Your task to perform on an android device: Go to eBay Image 0: 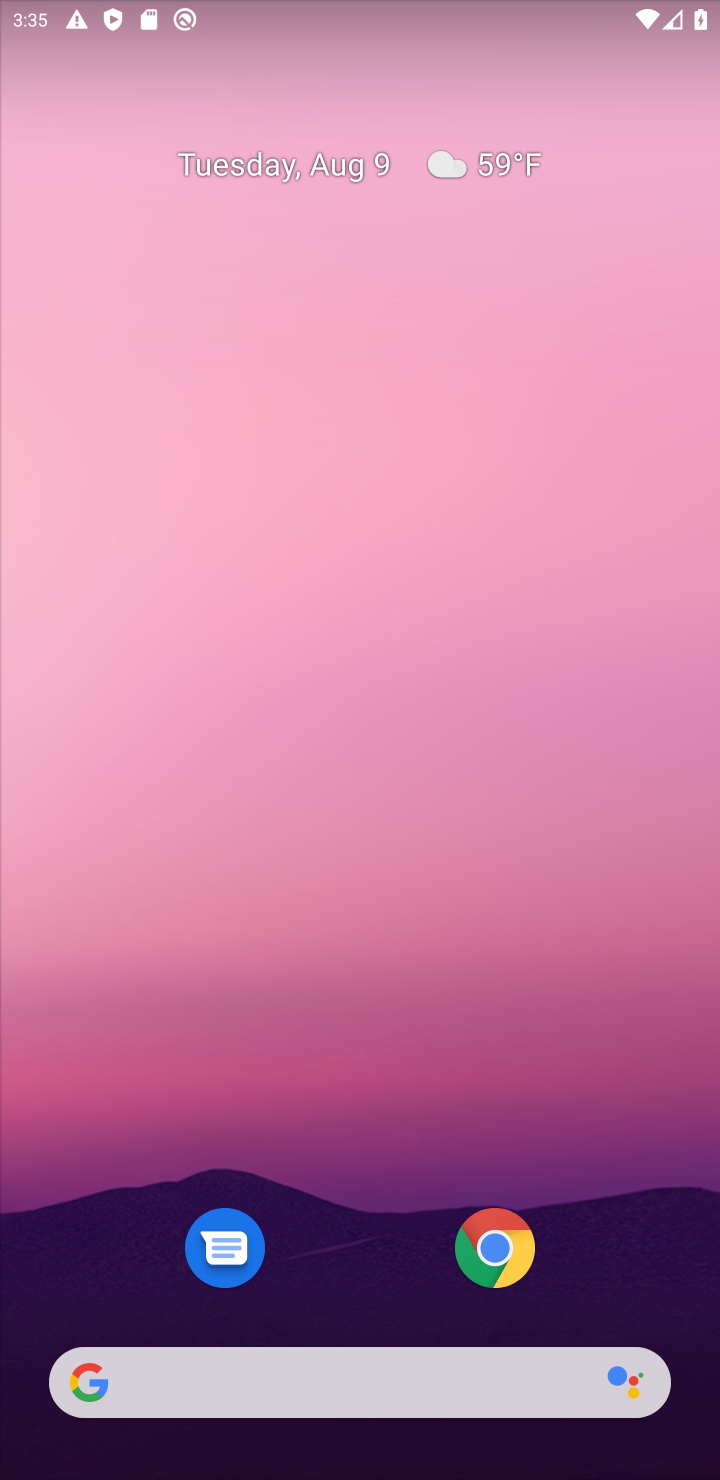
Step 0: drag from (365, 836) to (3, 450)
Your task to perform on an android device: Go to eBay Image 1: 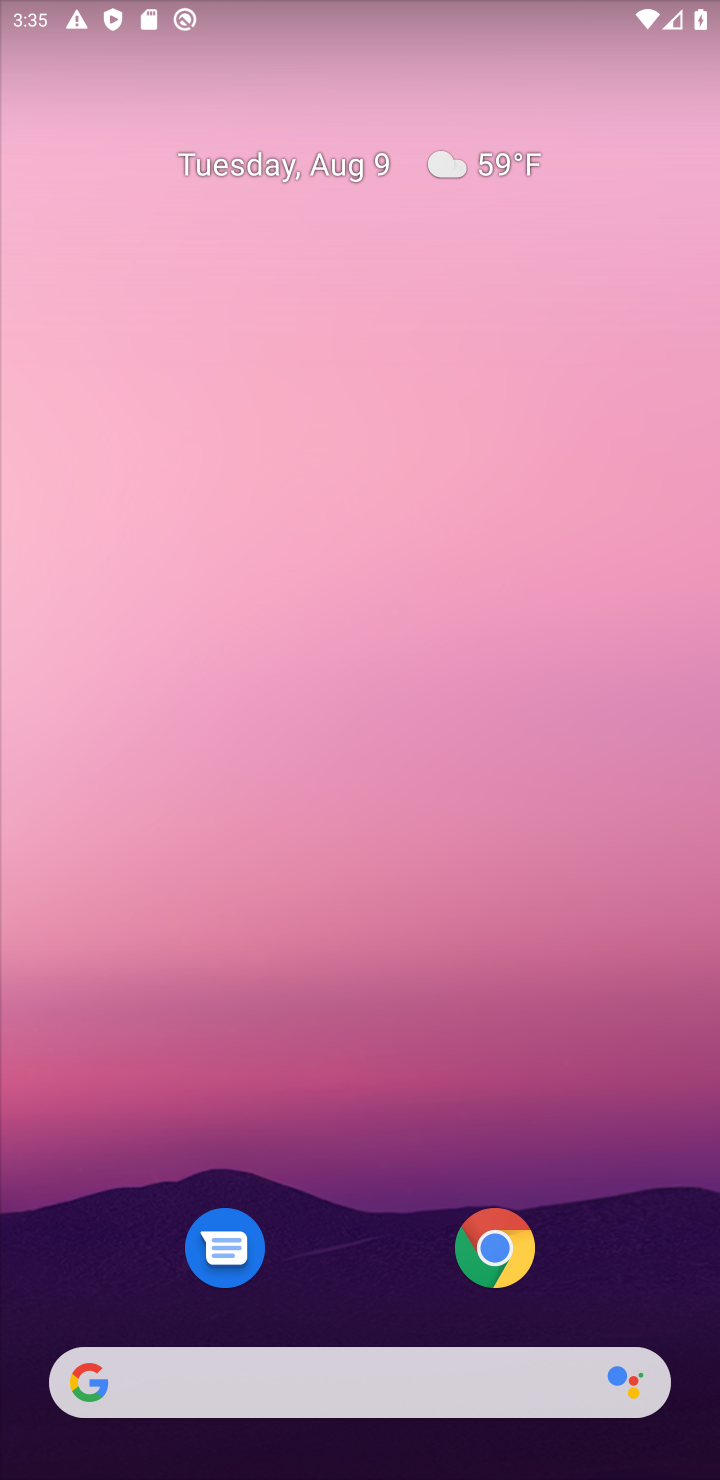
Step 1: drag from (399, 1162) to (387, 11)
Your task to perform on an android device: Go to eBay Image 2: 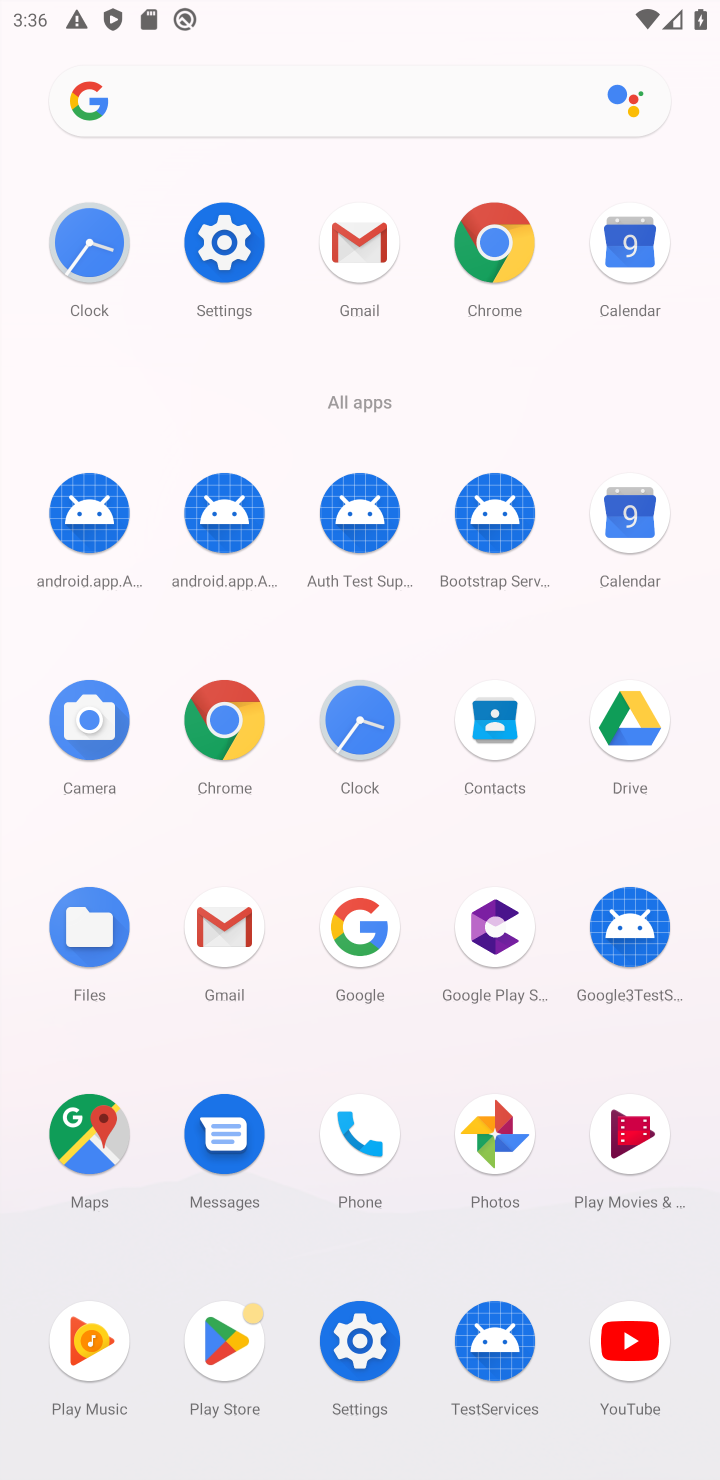
Step 2: click (219, 718)
Your task to perform on an android device: Go to eBay Image 3: 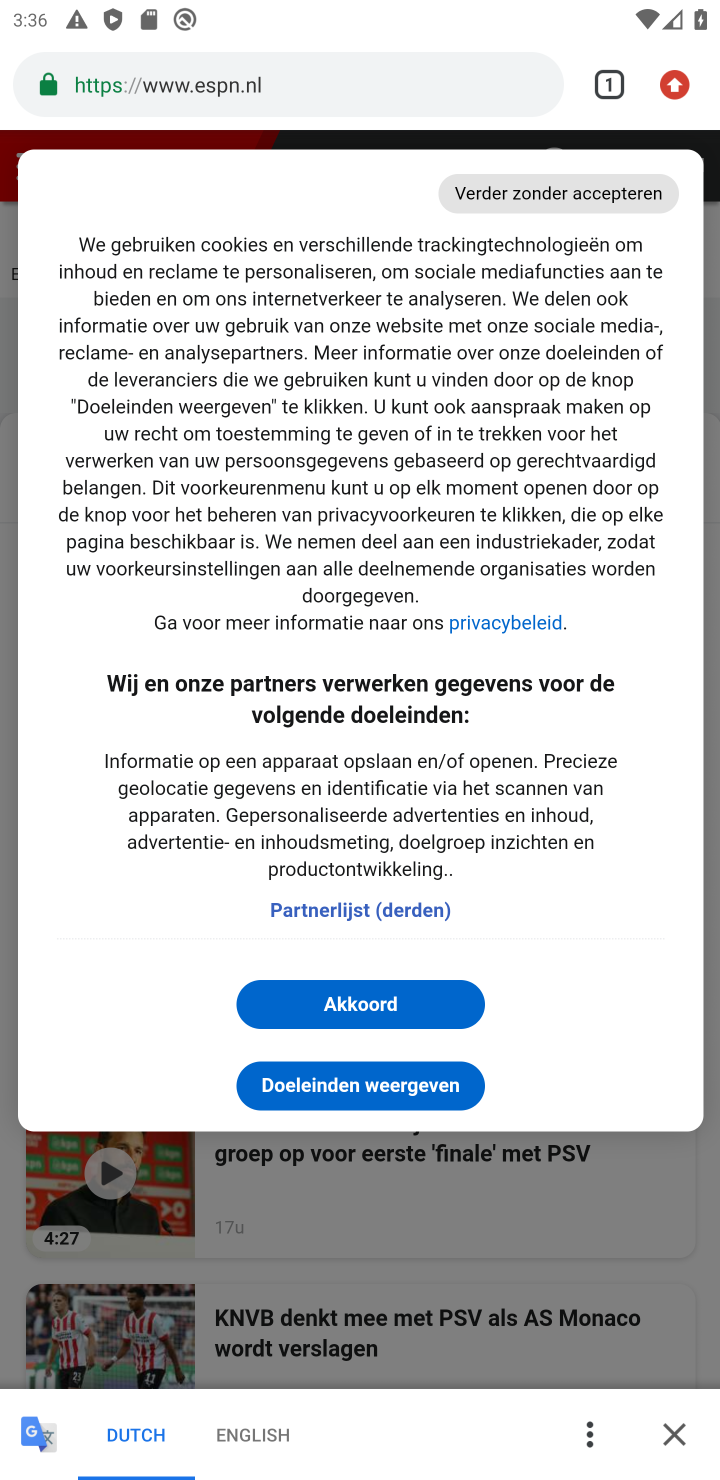
Step 3: click (358, 63)
Your task to perform on an android device: Go to eBay Image 4: 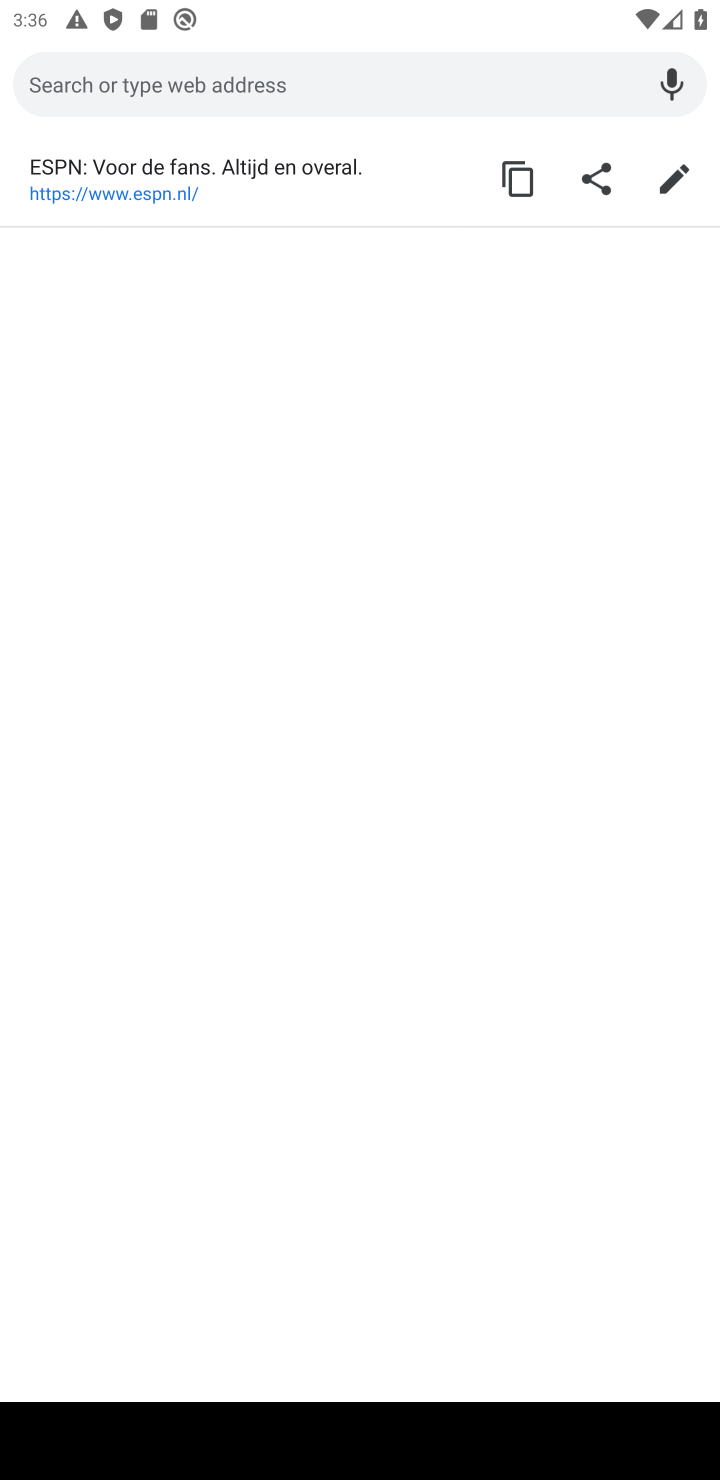
Step 4: type "ebay"
Your task to perform on an android device: Go to eBay Image 5: 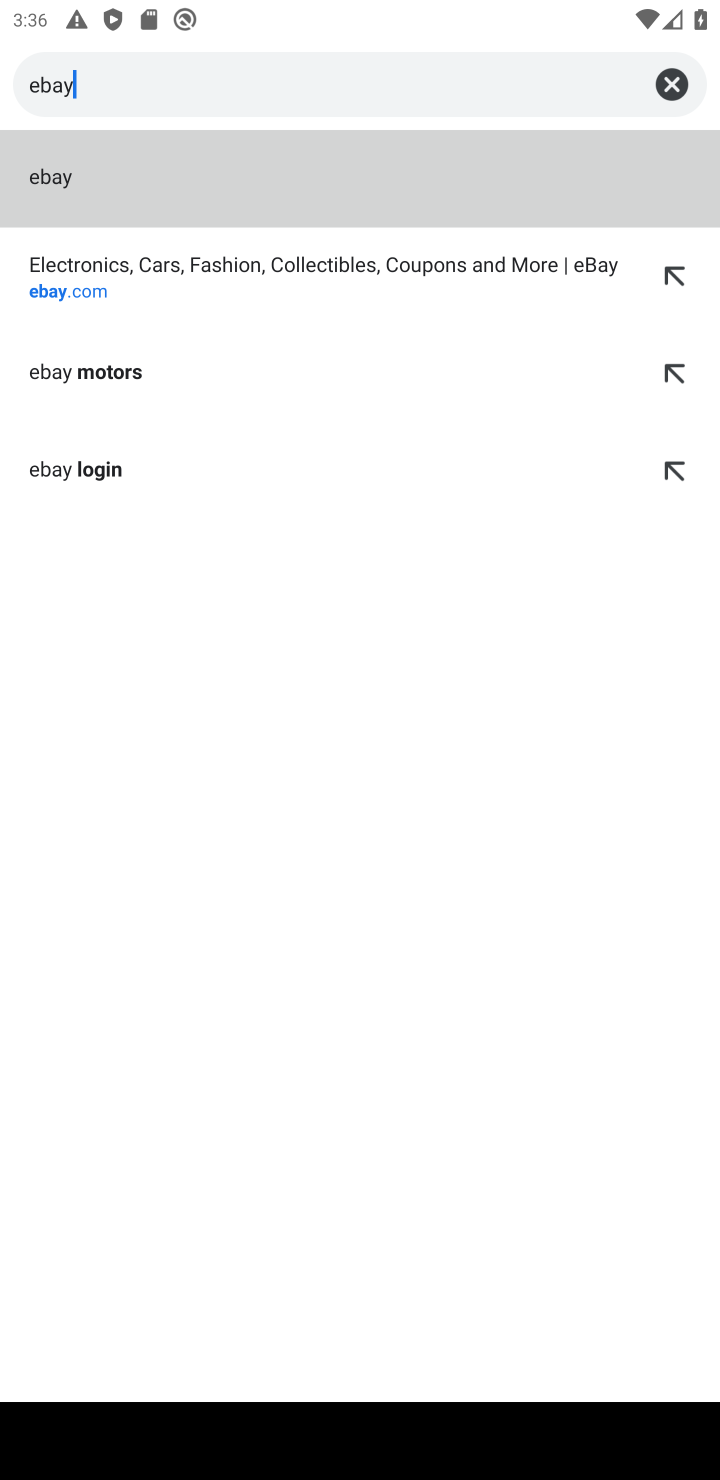
Step 5: click (297, 180)
Your task to perform on an android device: Go to eBay Image 6: 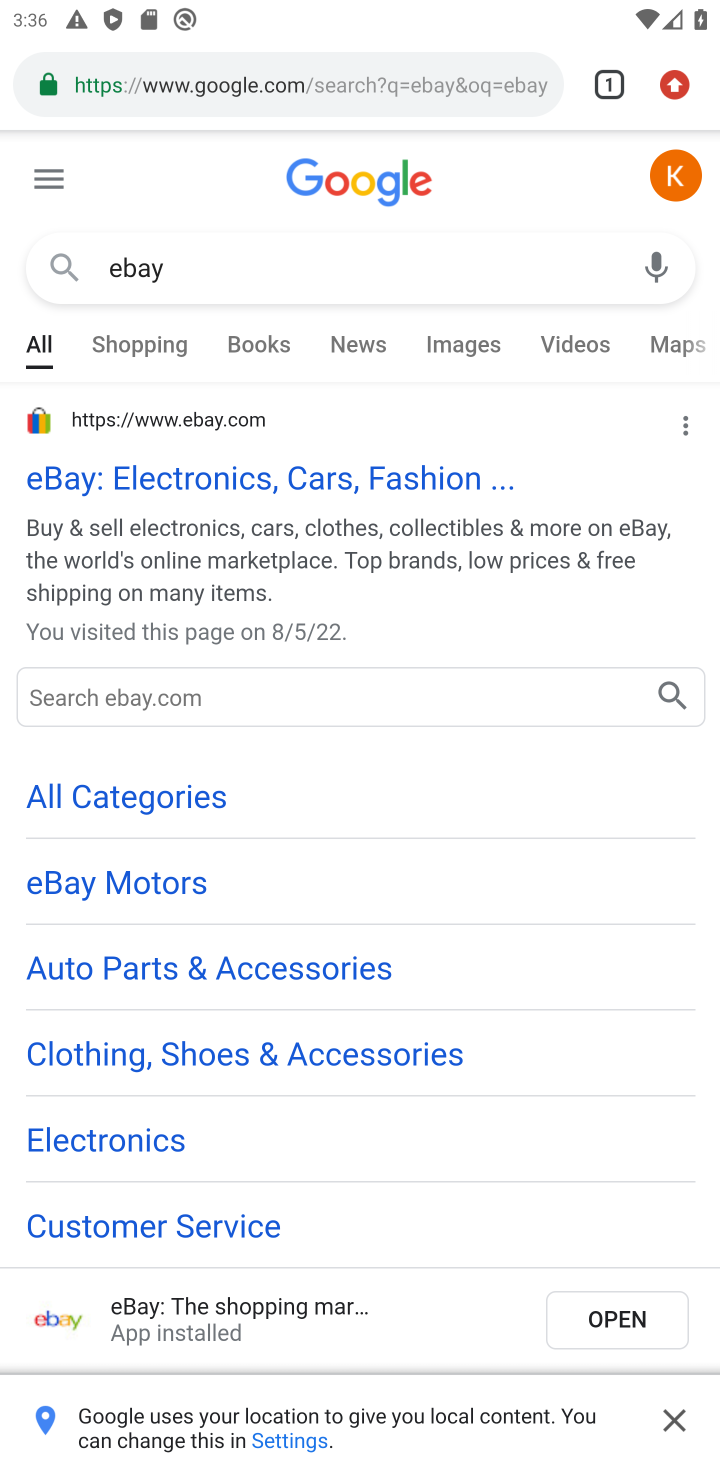
Step 6: click (170, 490)
Your task to perform on an android device: Go to eBay Image 7: 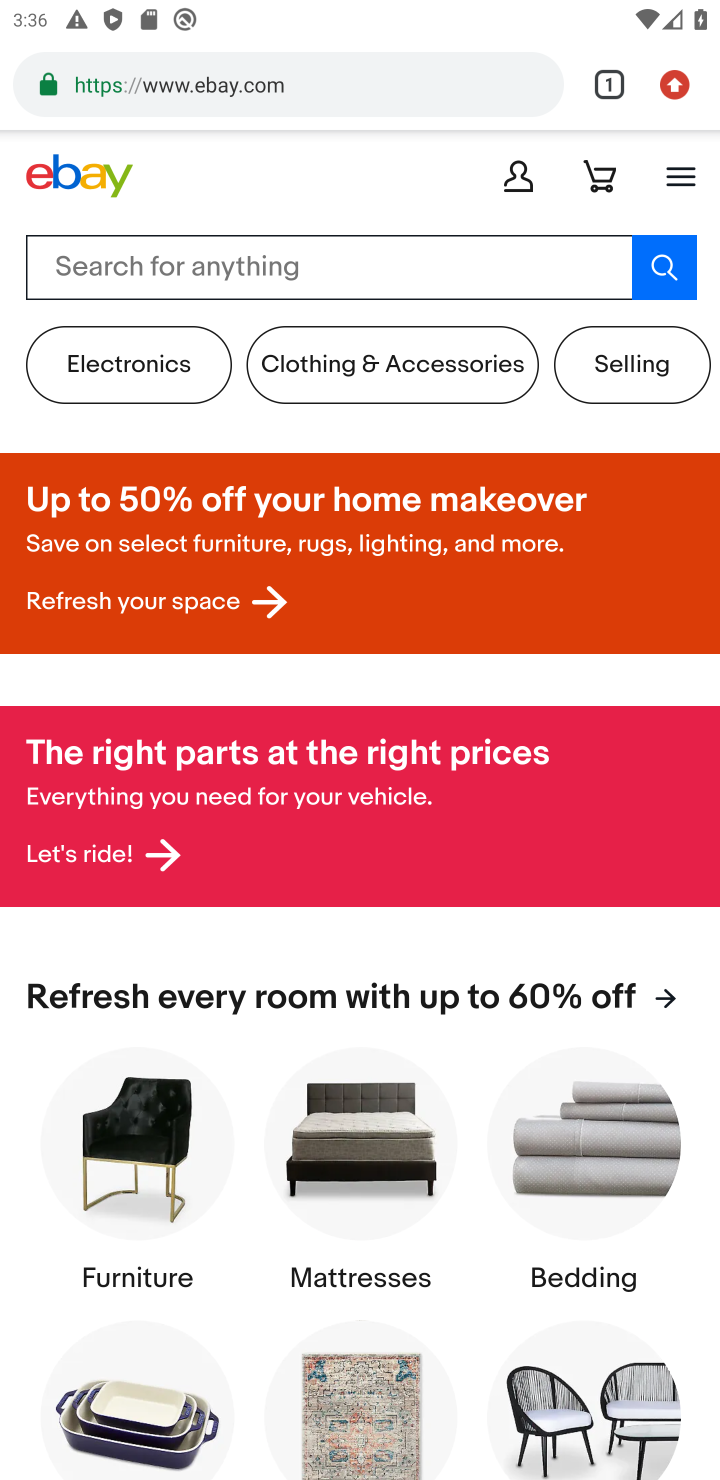
Step 7: task complete